Your task to perform on an android device: Open calendar and show me the first week of next month Image 0: 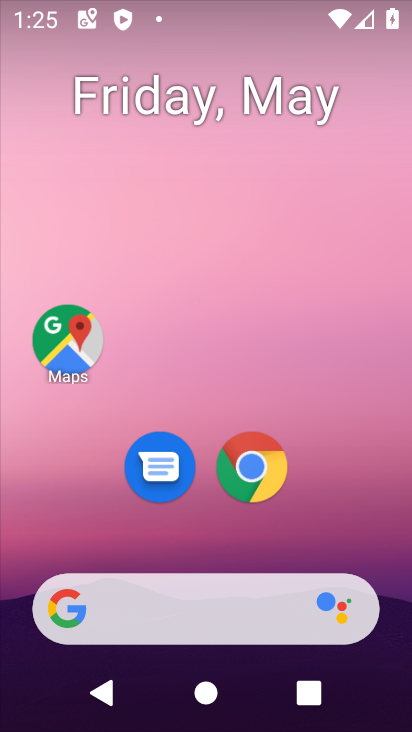
Step 0: drag from (295, 523) to (384, 141)
Your task to perform on an android device: Open calendar and show me the first week of next month Image 1: 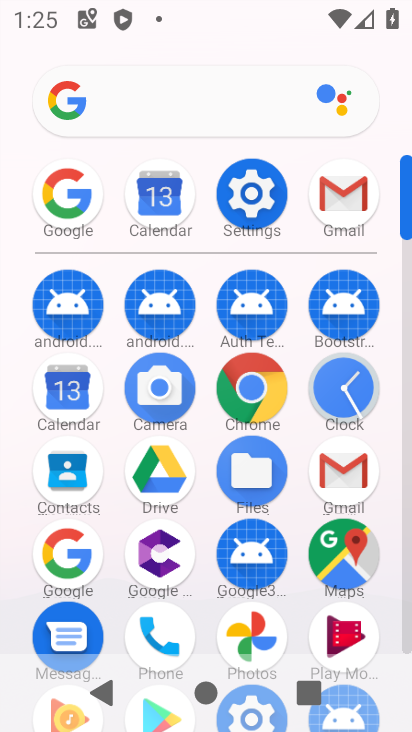
Step 1: click (74, 388)
Your task to perform on an android device: Open calendar and show me the first week of next month Image 2: 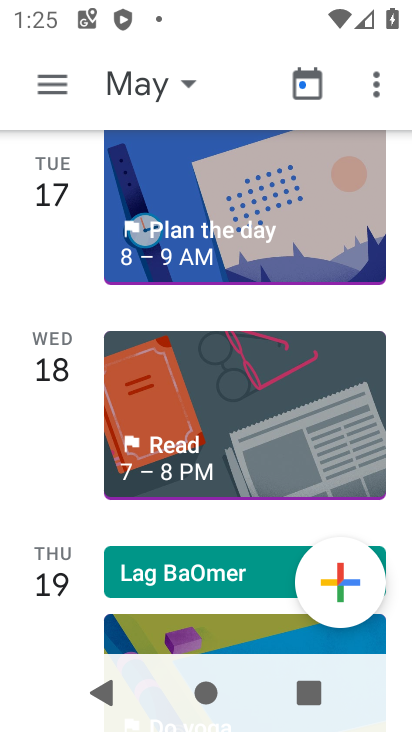
Step 2: click (172, 80)
Your task to perform on an android device: Open calendar and show me the first week of next month Image 3: 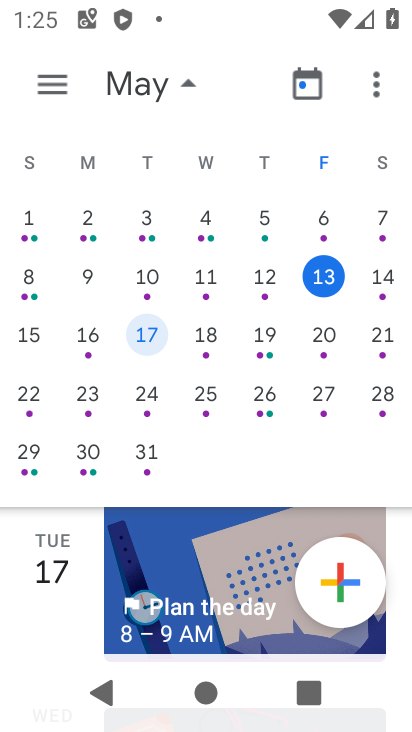
Step 3: drag from (299, 310) to (16, 331)
Your task to perform on an android device: Open calendar and show me the first week of next month Image 4: 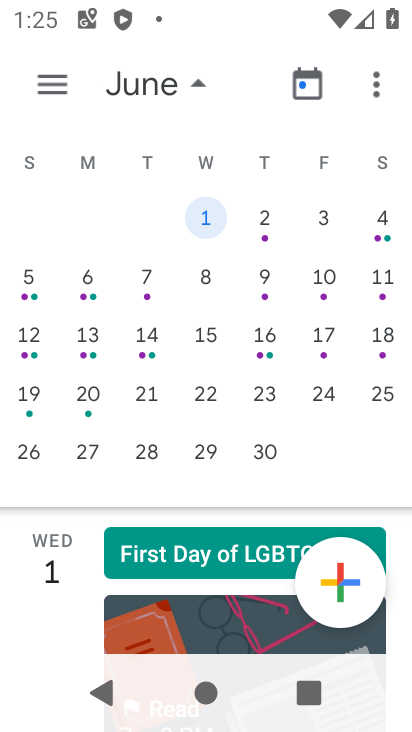
Step 4: click (53, 79)
Your task to perform on an android device: Open calendar and show me the first week of next month Image 5: 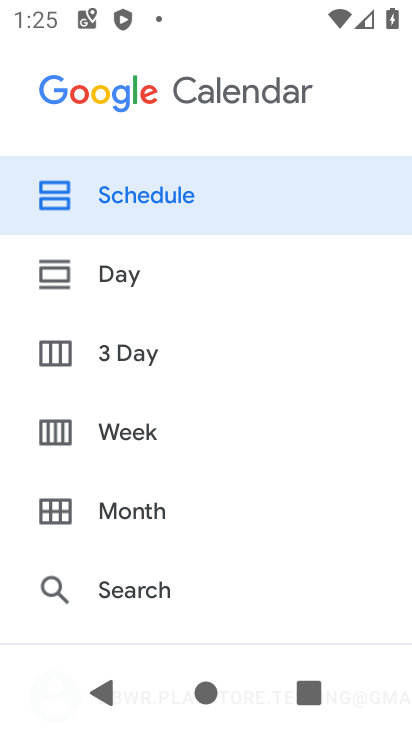
Step 5: click (120, 428)
Your task to perform on an android device: Open calendar and show me the first week of next month Image 6: 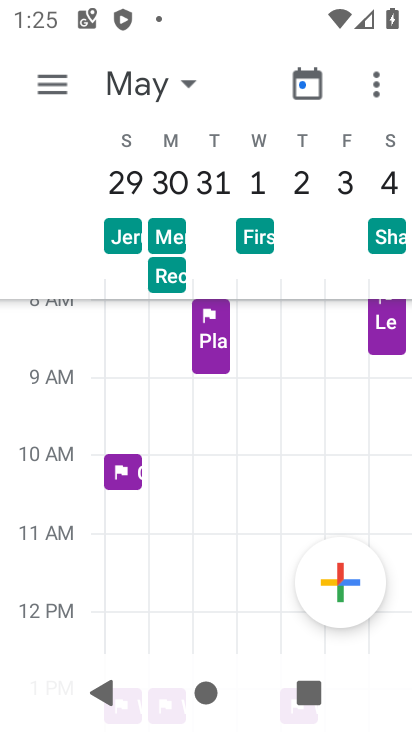
Step 6: task complete